Your task to perform on an android device: Check the weather Image 0: 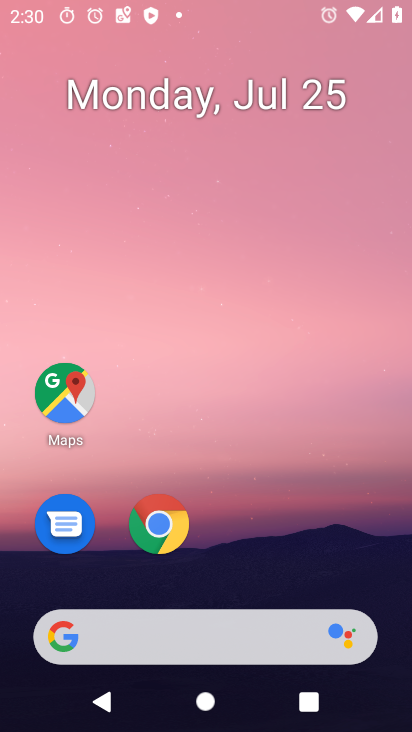
Step 0: press home button
Your task to perform on an android device: Check the weather Image 1: 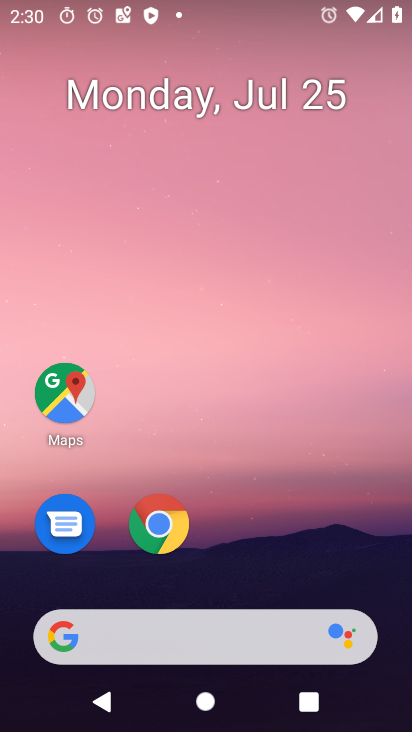
Step 1: click (52, 655)
Your task to perform on an android device: Check the weather Image 2: 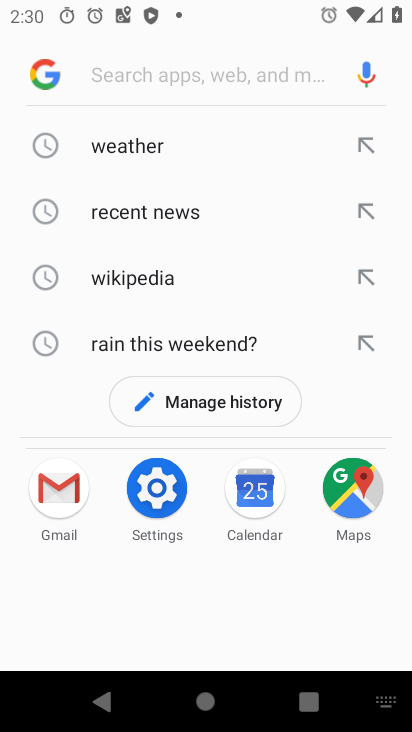
Step 2: click (136, 158)
Your task to perform on an android device: Check the weather Image 3: 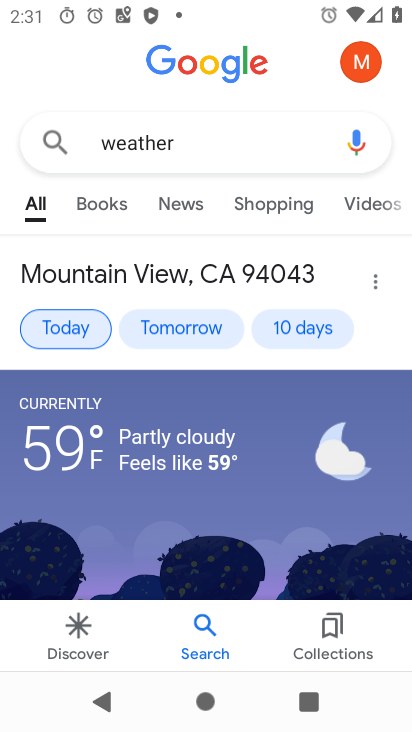
Step 3: task complete